Your task to perform on an android device: turn on data saver in the chrome app Image 0: 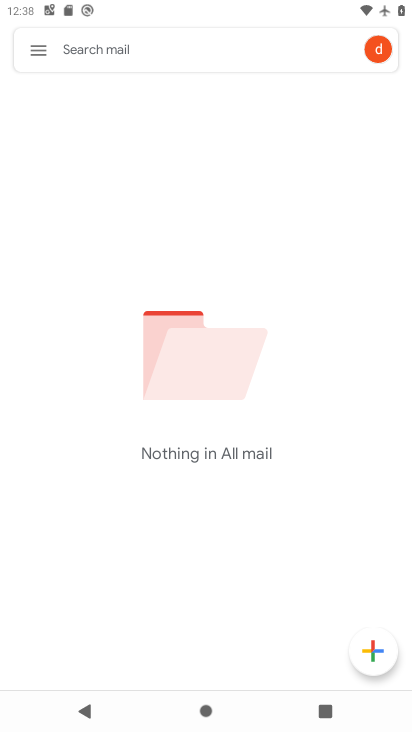
Step 0: drag from (171, 648) to (190, 340)
Your task to perform on an android device: turn on data saver in the chrome app Image 1: 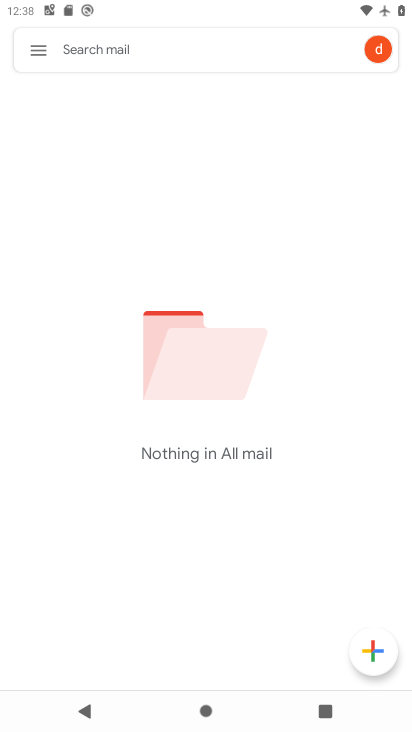
Step 1: press home button
Your task to perform on an android device: turn on data saver in the chrome app Image 2: 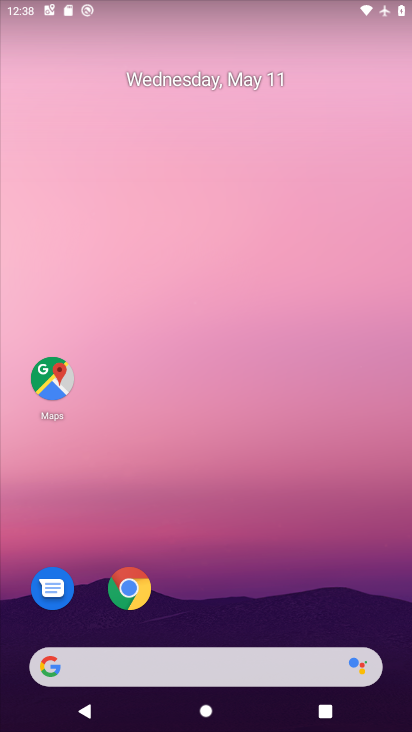
Step 2: click (134, 596)
Your task to perform on an android device: turn on data saver in the chrome app Image 3: 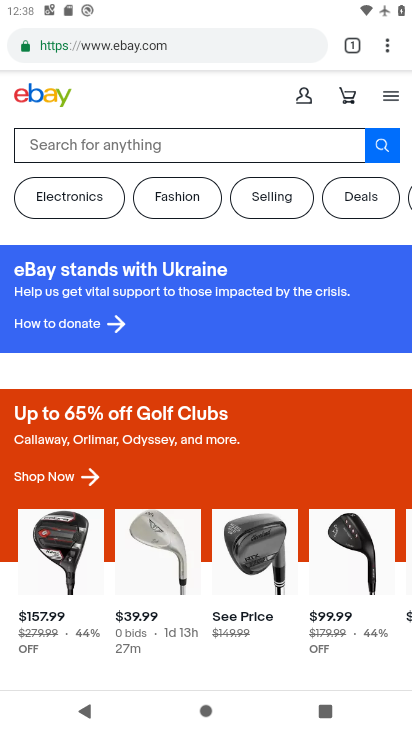
Step 3: click (383, 43)
Your task to perform on an android device: turn on data saver in the chrome app Image 4: 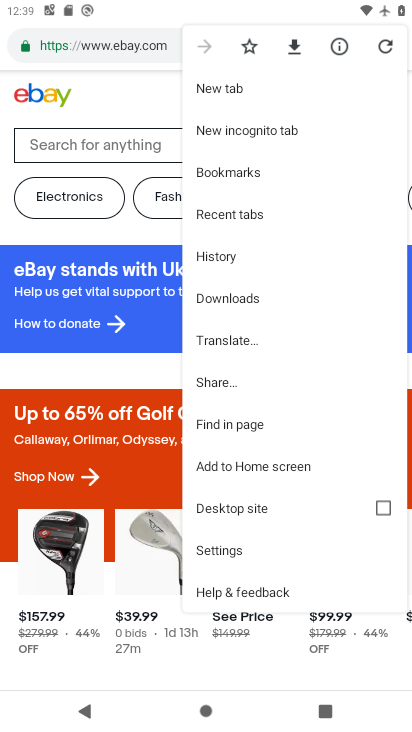
Step 4: click (226, 543)
Your task to perform on an android device: turn on data saver in the chrome app Image 5: 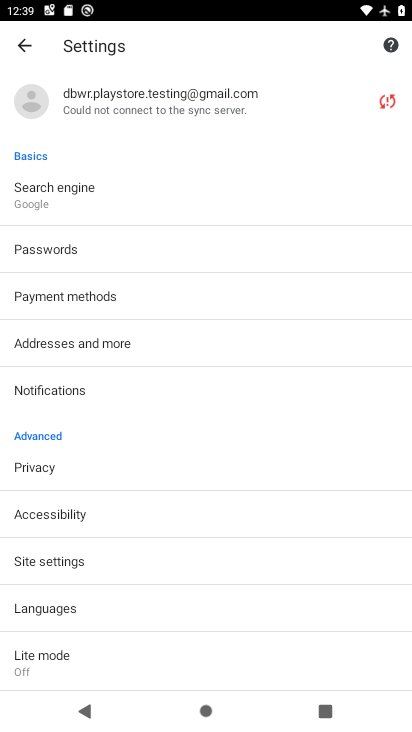
Step 5: click (36, 662)
Your task to perform on an android device: turn on data saver in the chrome app Image 6: 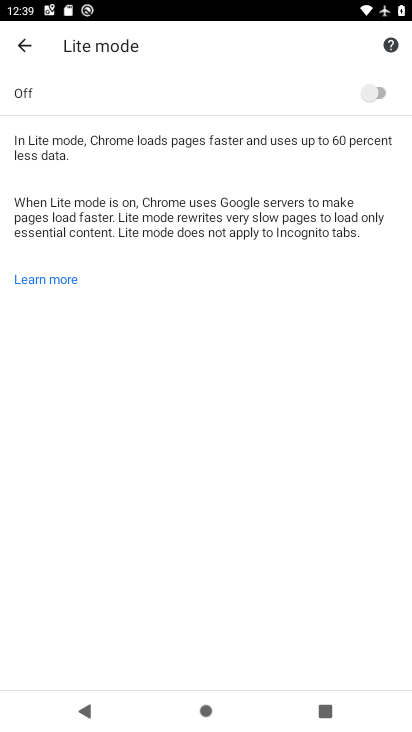
Step 6: click (378, 92)
Your task to perform on an android device: turn on data saver in the chrome app Image 7: 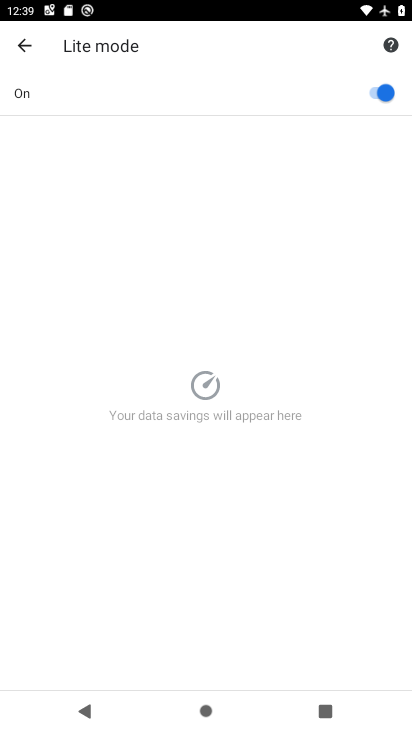
Step 7: task complete